Your task to perform on an android device: Open location settings Image 0: 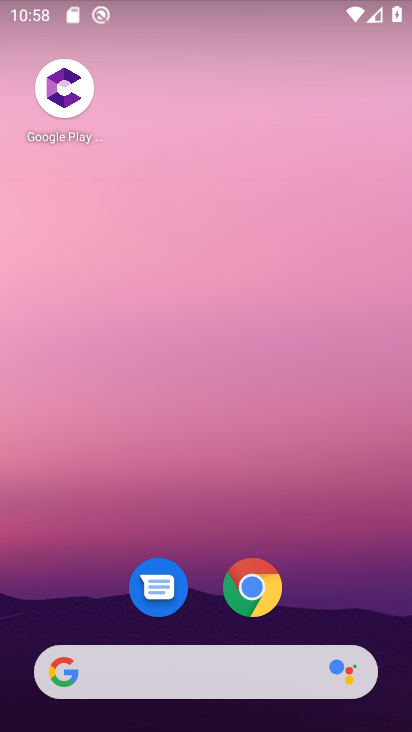
Step 0: drag from (191, 617) to (194, 80)
Your task to perform on an android device: Open location settings Image 1: 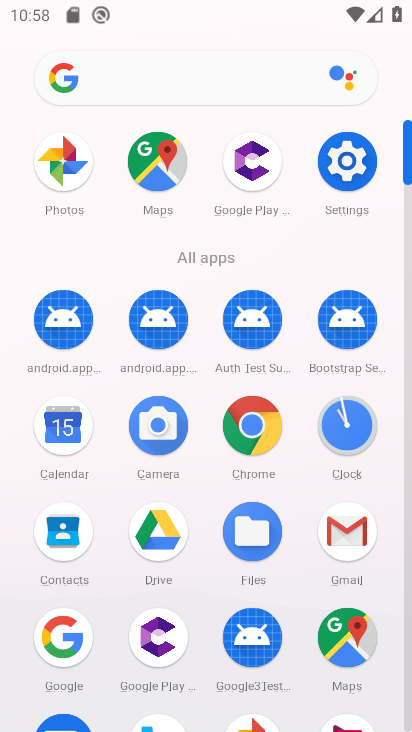
Step 1: click (325, 166)
Your task to perform on an android device: Open location settings Image 2: 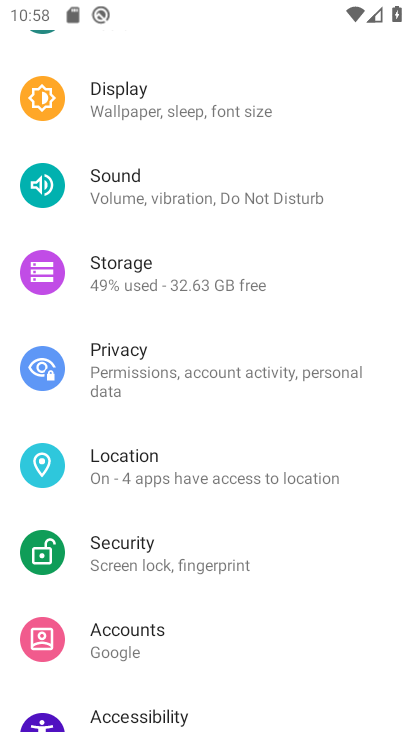
Step 2: click (193, 471)
Your task to perform on an android device: Open location settings Image 3: 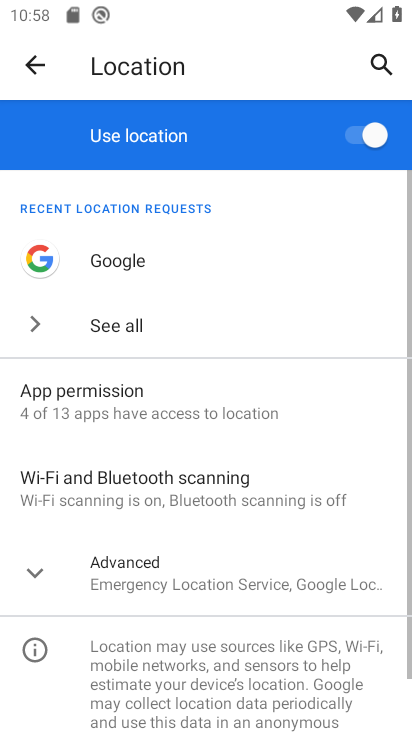
Step 3: task complete